Your task to perform on an android device: turn on priority inbox in the gmail app Image 0: 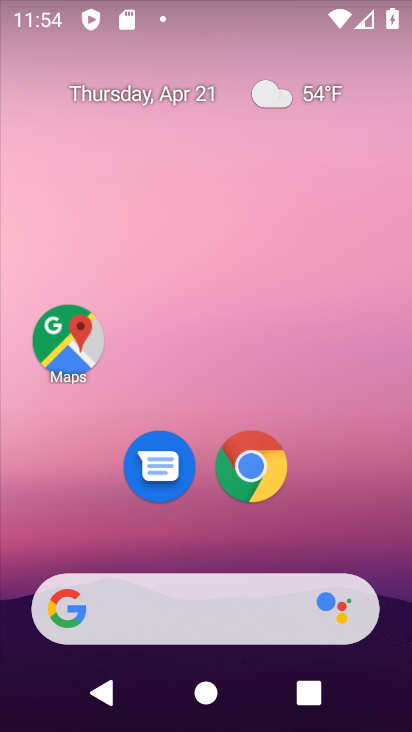
Step 0: press home button
Your task to perform on an android device: turn on priority inbox in the gmail app Image 1: 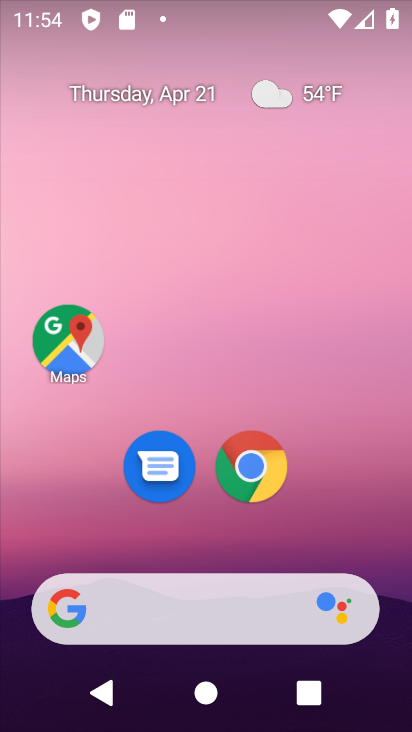
Step 1: drag from (335, 419) to (252, 65)
Your task to perform on an android device: turn on priority inbox in the gmail app Image 2: 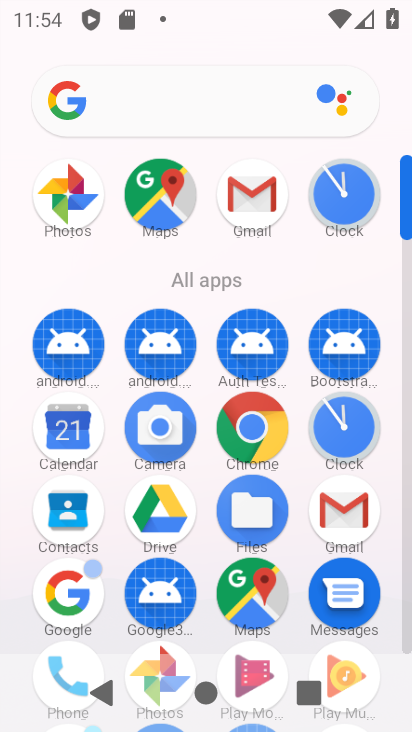
Step 2: click (245, 191)
Your task to perform on an android device: turn on priority inbox in the gmail app Image 3: 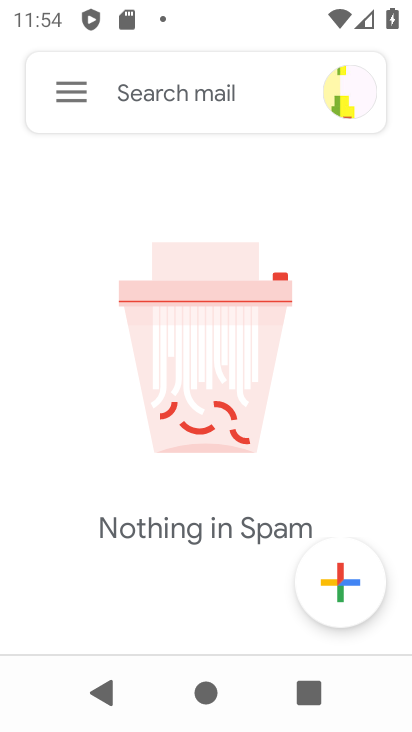
Step 3: click (68, 101)
Your task to perform on an android device: turn on priority inbox in the gmail app Image 4: 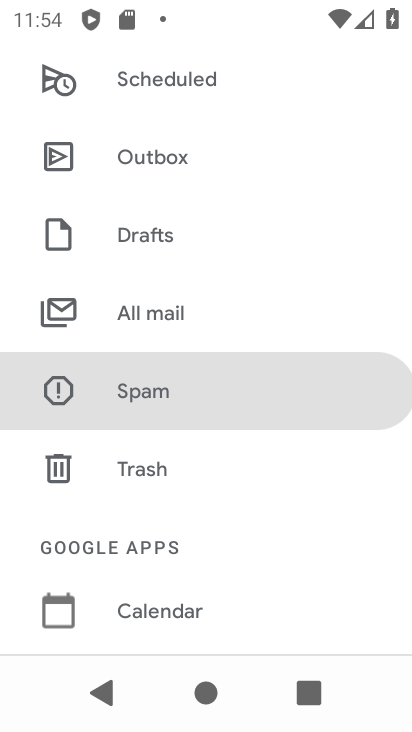
Step 4: drag from (310, 606) to (308, 211)
Your task to perform on an android device: turn on priority inbox in the gmail app Image 5: 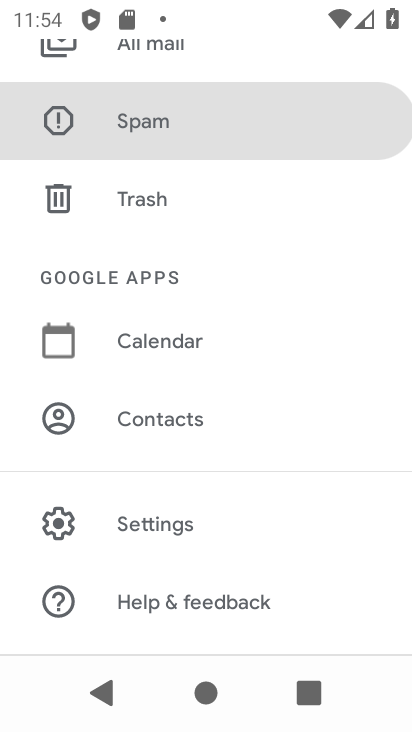
Step 5: click (142, 514)
Your task to perform on an android device: turn on priority inbox in the gmail app Image 6: 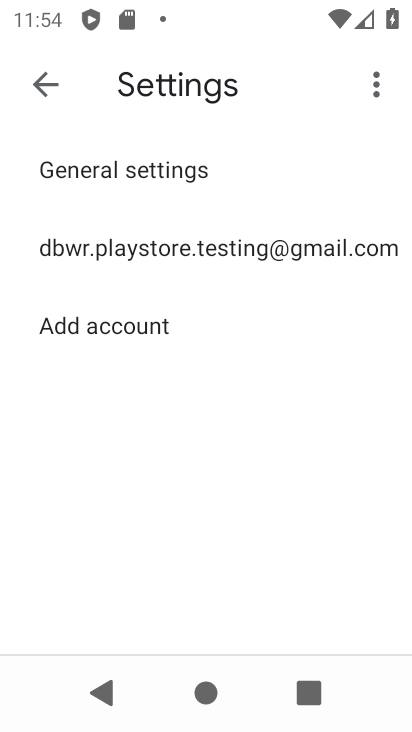
Step 6: click (172, 236)
Your task to perform on an android device: turn on priority inbox in the gmail app Image 7: 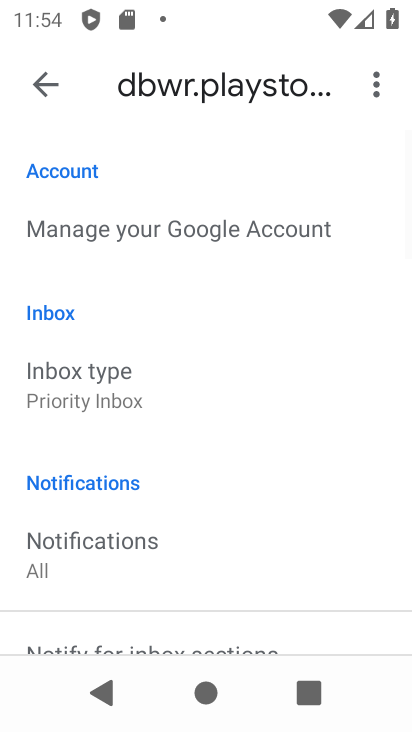
Step 7: click (104, 389)
Your task to perform on an android device: turn on priority inbox in the gmail app Image 8: 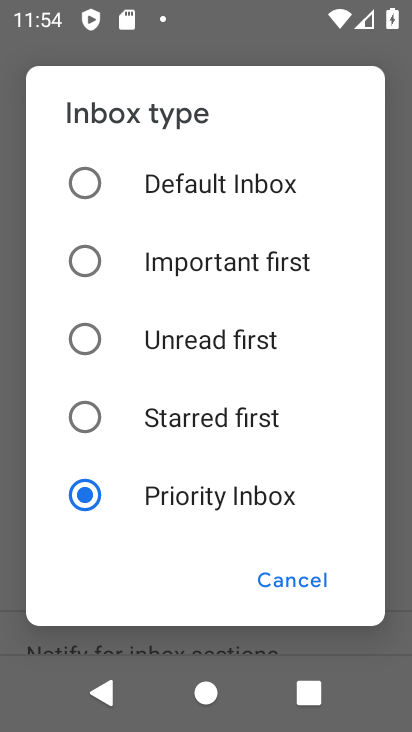
Step 8: task complete